Your task to perform on an android device: set the stopwatch Image 0: 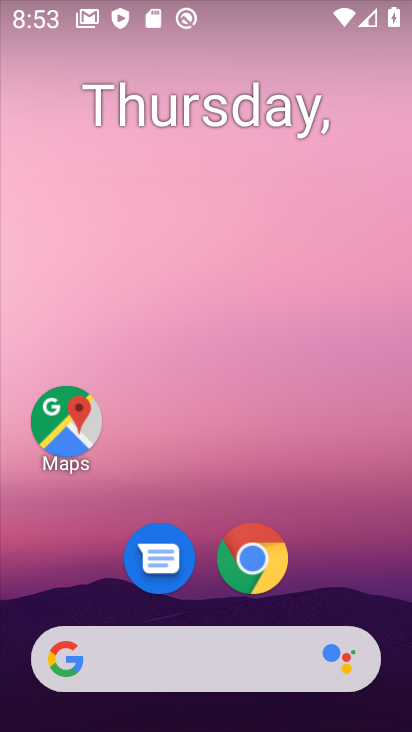
Step 0: drag from (383, 623) to (335, 14)
Your task to perform on an android device: set the stopwatch Image 1: 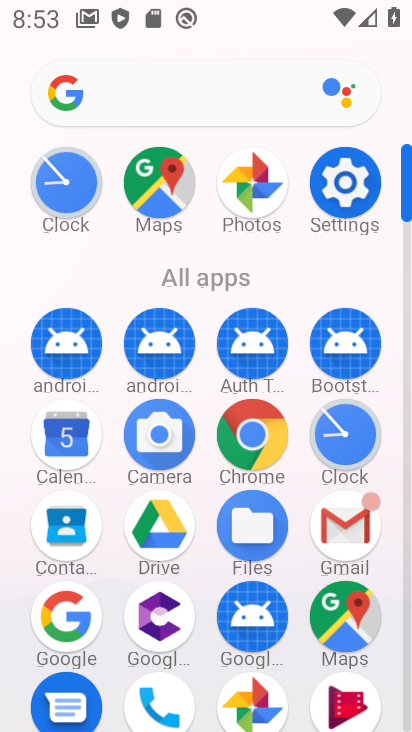
Step 1: click (410, 687)
Your task to perform on an android device: set the stopwatch Image 2: 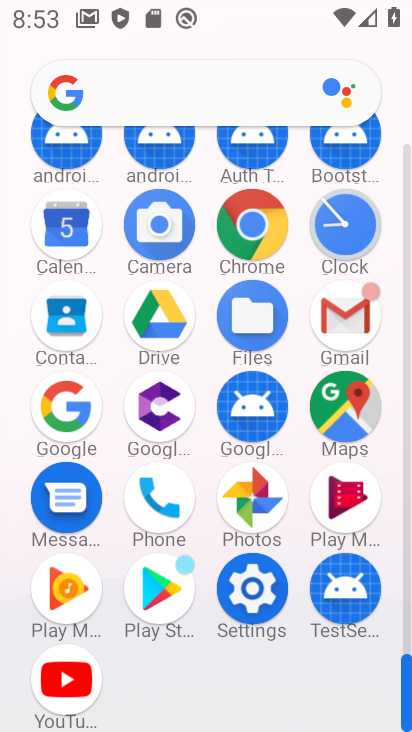
Step 2: click (347, 223)
Your task to perform on an android device: set the stopwatch Image 3: 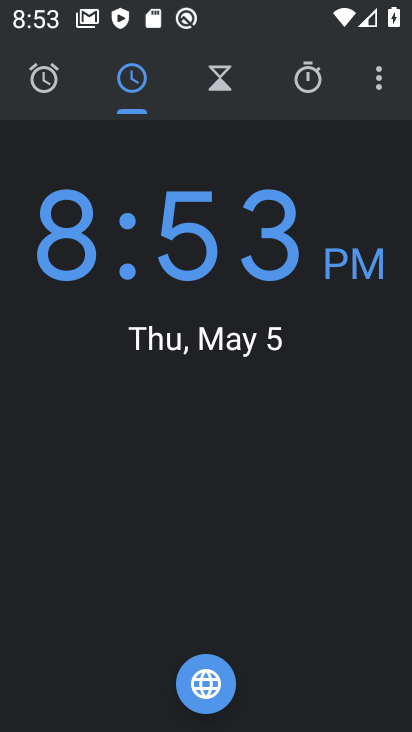
Step 3: click (306, 77)
Your task to perform on an android device: set the stopwatch Image 4: 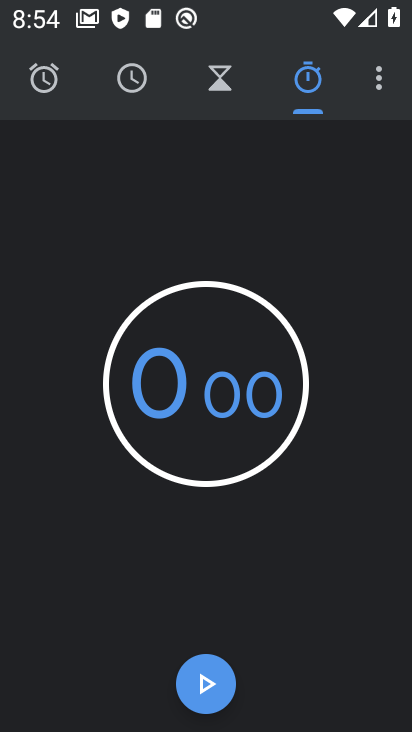
Step 4: task complete